Your task to perform on an android device: Go to Amazon Image 0: 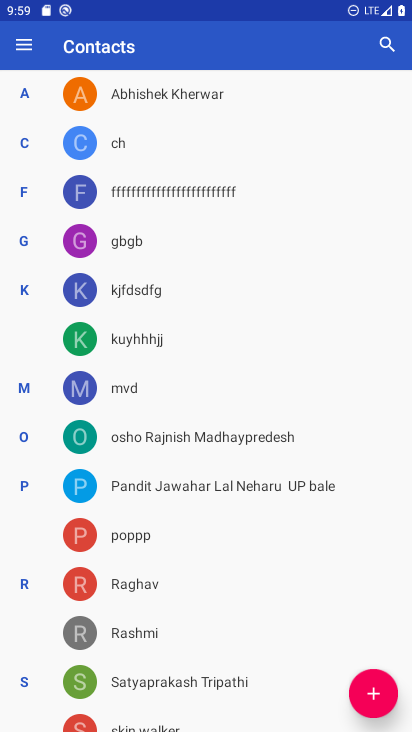
Step 0: press home button
Your task to perform on an android device: Go to Amazon Image 1: 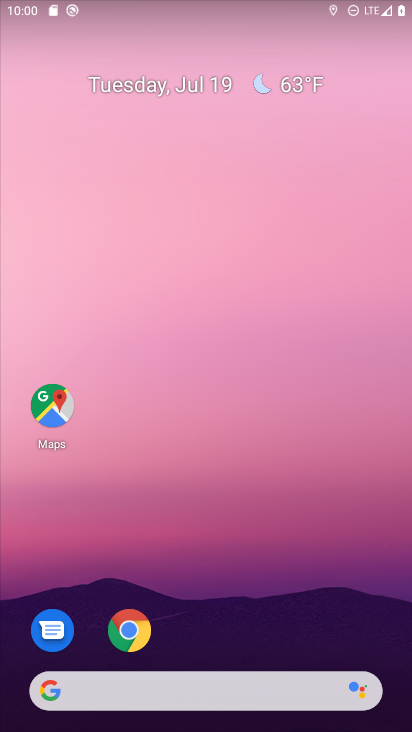
Step 1: click (130, 632)
Your task to perform on an android device: Go to Amazon Image 2: 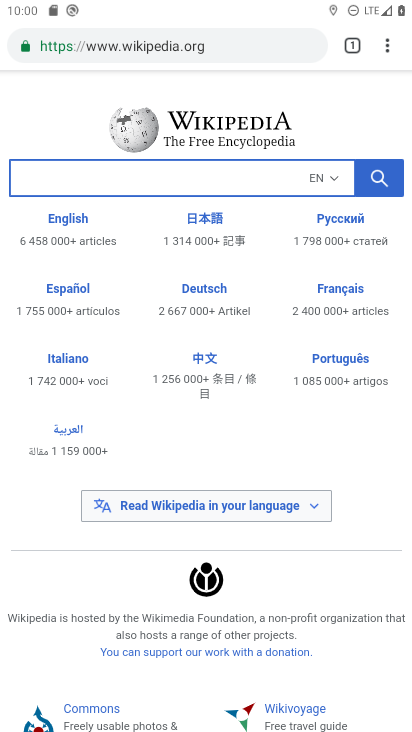
Step 2: click (274, 43)
Your task to perform on an android device: Go to Amazon Image 3: 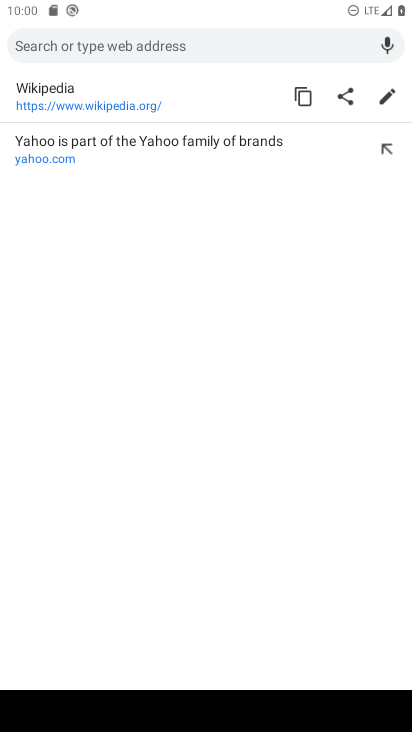
Step 3: type "Amazon"
Your task to perform on an android device: Go to Amazon Image 4: 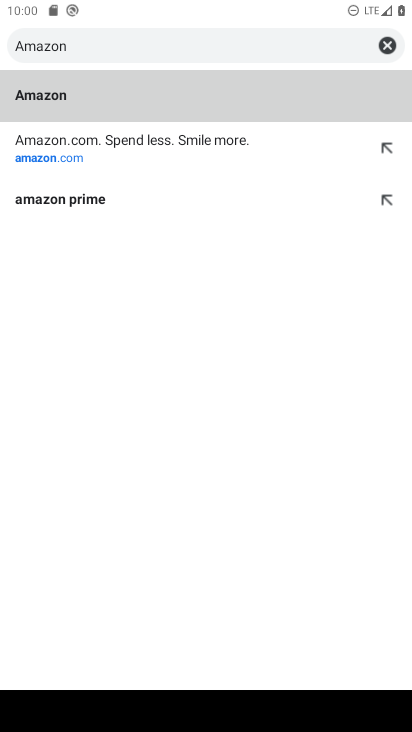
Step 4: click (65, 93)
Your task to perform on an android device: Go to Amazon Image 5: 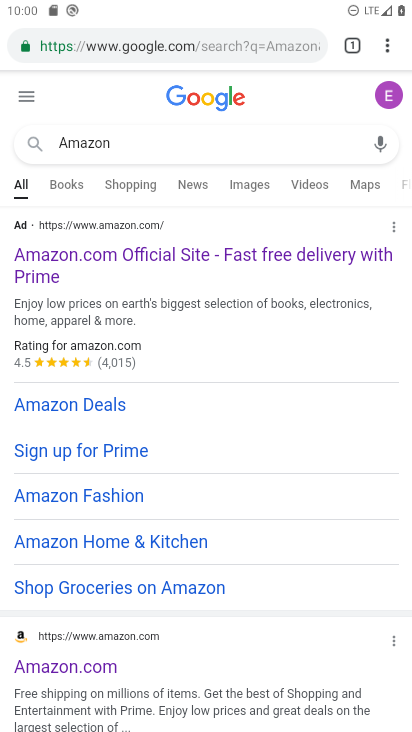
Step 5: drag from (111, 674) to (242, 389)
Your task to perform on an android device: Go to Amazon Image 6: 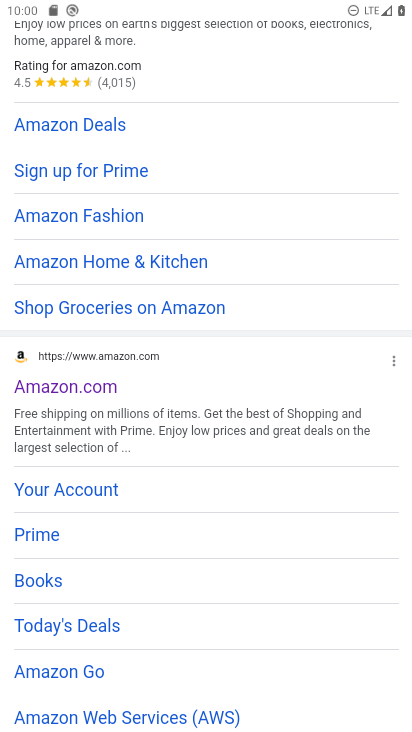
Step 6: click (80, 380)
Your task to perform on an android device: Go to Amazon Image 7: 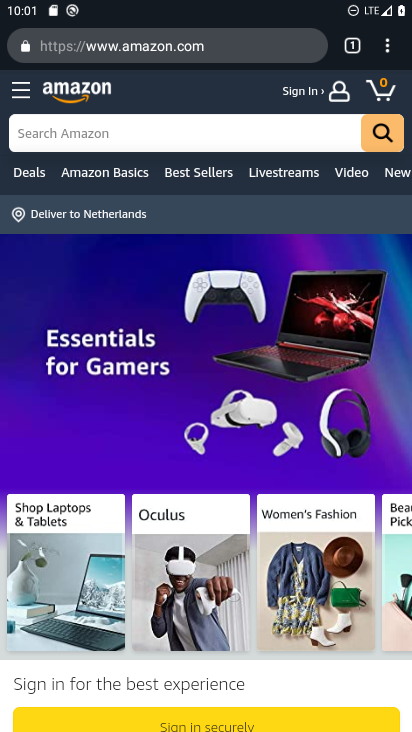
Step 7: task complete